Your task to perform on an android device: toggle javascript in the chrome app Image 0: 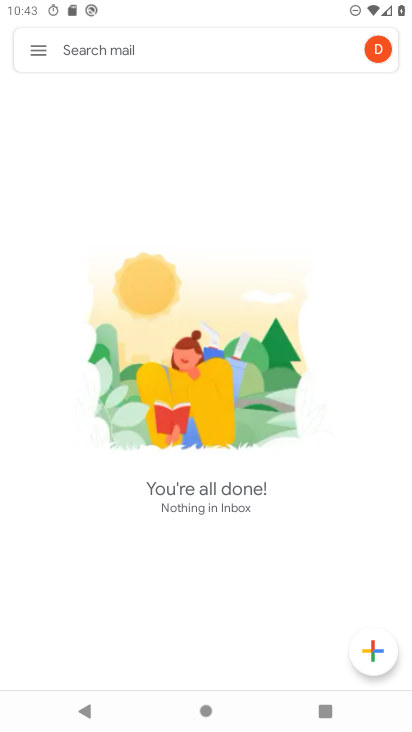
Step 0: press home button
Your task to perform on an android device: toggle javascript in the chrome app Image 1: 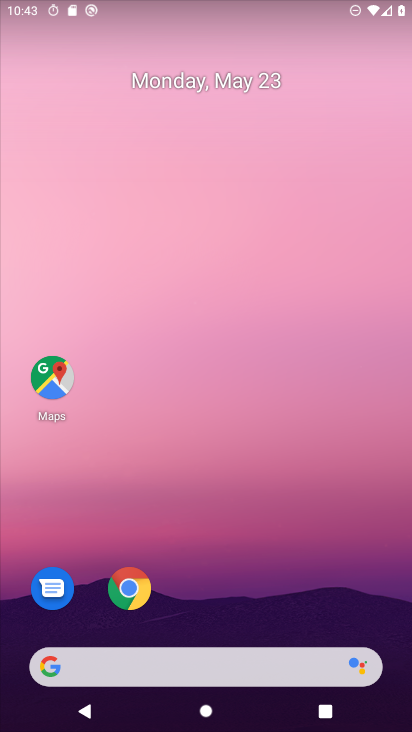
Step 1: click (122, 579)
Your task to perform on an android device: toggle javascript in the chrome app Image 2: 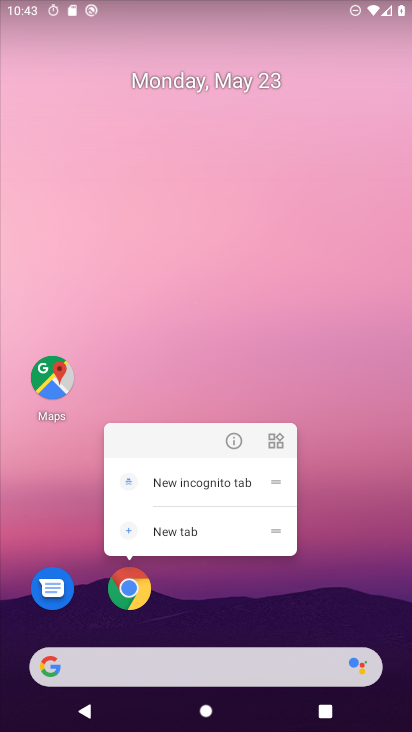
Step 2: click (128, 587)
Your task to perform on an android device: toggle javascript in the chrome app Image 3: 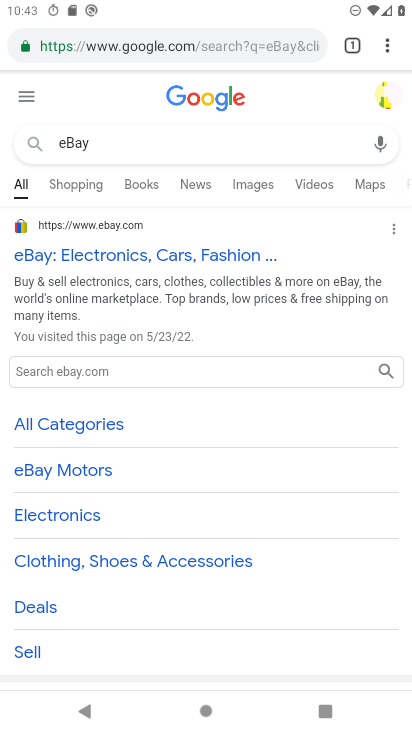
Step 3: click (388, 50)
Your task to perform on an android device: toggle javascript in the chrome app Image 4: 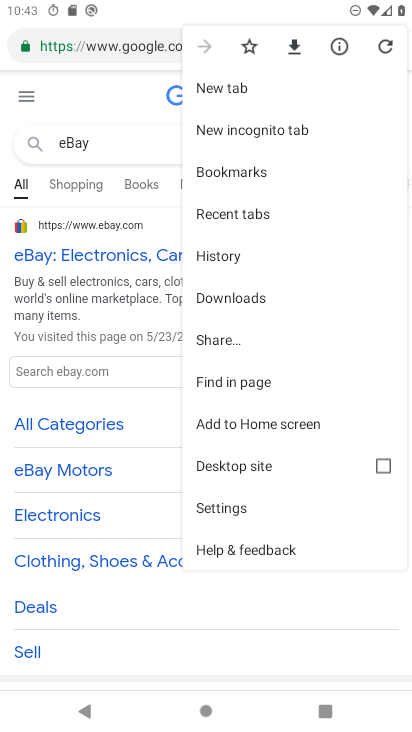
Step 4: click (219, 506)
Your task to perform on an android device: toggle javascript in the chrome app Image 5: 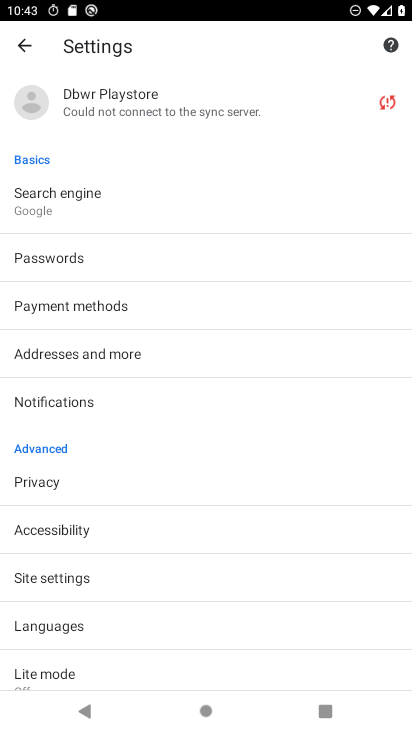
Step 5: click (53, 577)
Your task to perform on an android device: toggle javascript in the chrome app Image 6: 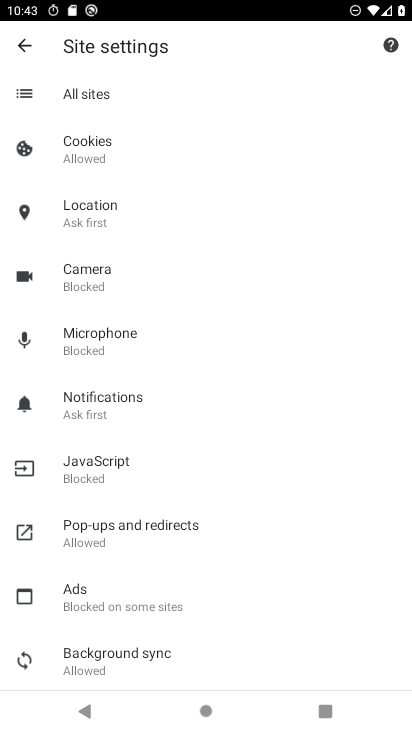
Step 6: click (87, 459)
Your task to perform on an android device: toggle javascript in the chrome app Image 7: 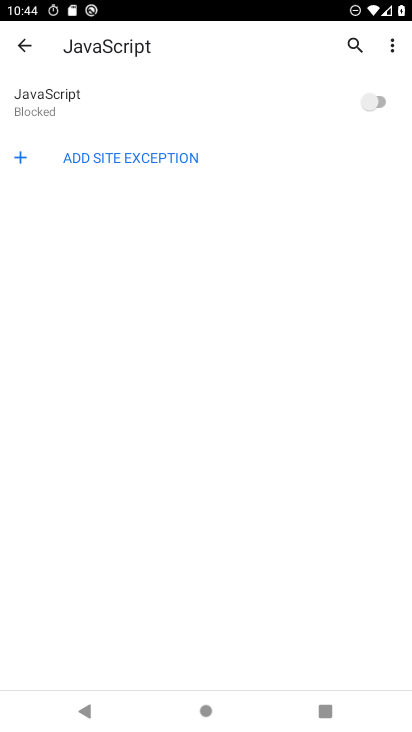
Step 7: click (382, 103)
Your task to perform on an android device: toggle javascript in the chrome app Image 8: 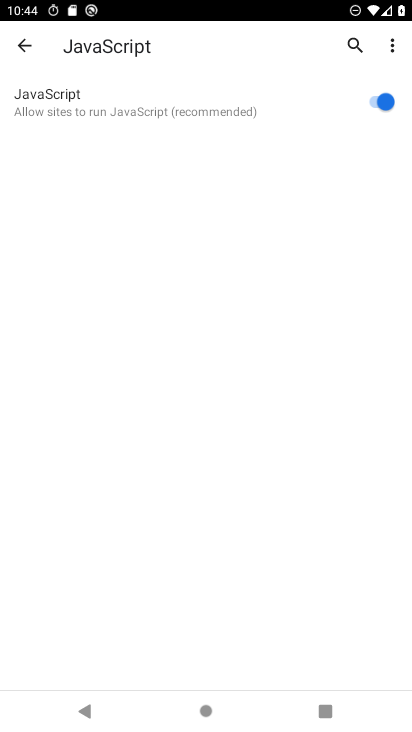
Step 8: task complete